Your task to perform on an android device: Show me the alarms in the clock app Image 0: 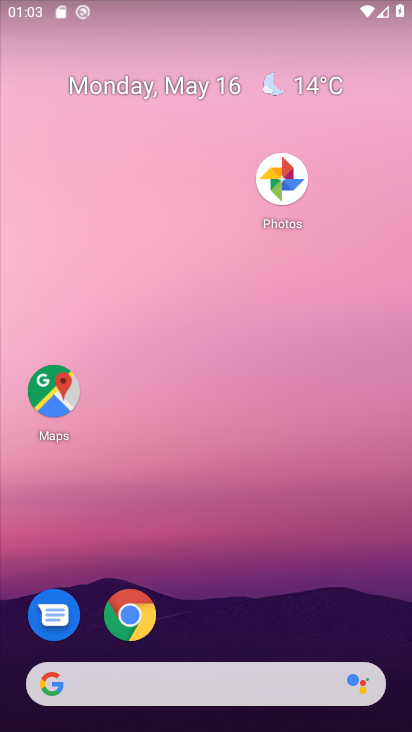
Step 0: drag from (361, 428) to (364, 155)
Your task to perform on an android device: Show me the alarms in the clock app Image 1: 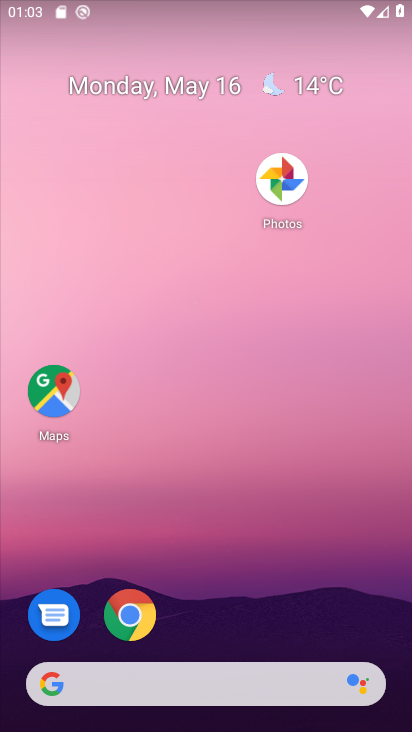
Step 1: drag from (320, 628) to (370, 214)
Your task to perform on an android device: Show me the alarms in the clock app Image 2: 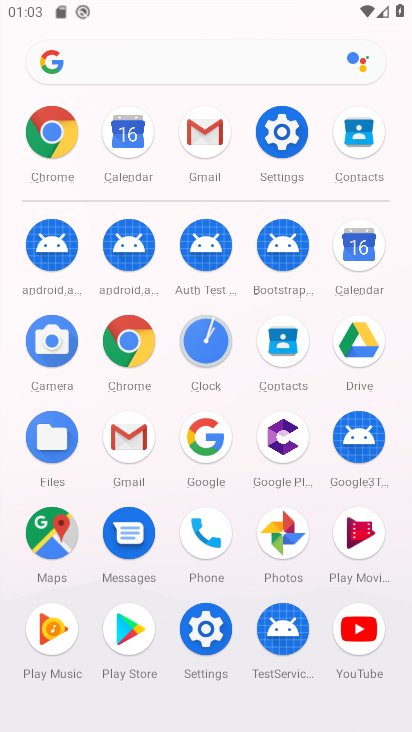
Step 2: click (204, 348)
Your task to perform on an android device: Show me the alarms in the clock app Image 3: 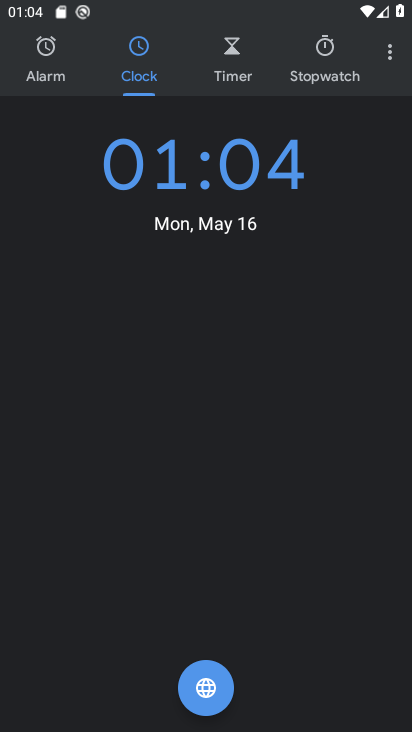
Step 3: click (49, 61)
Your task to perform on an android device: Show me the alarms in the clock app Image 4: 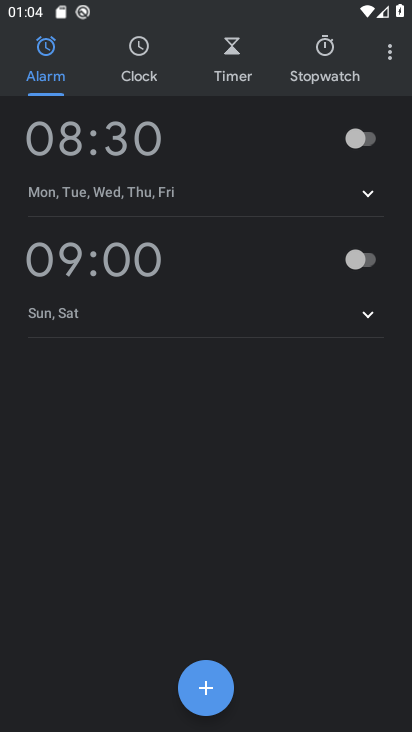
Step 4: task complete